Your task to perform on an android device: Open calendar and show me the fourth week of next month Image 0: 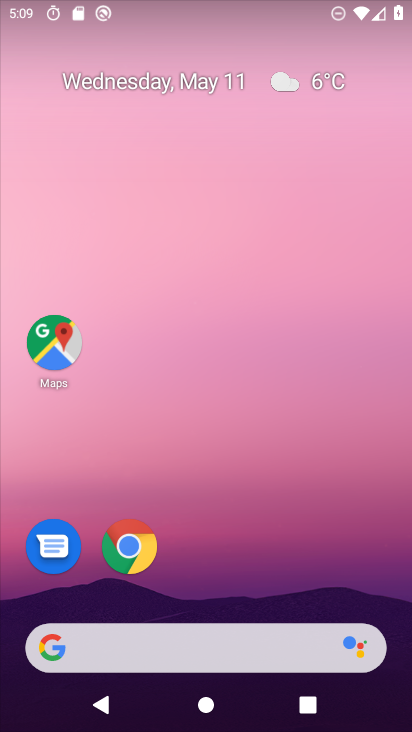
Step 0: drag from (234, 606) to (205, 196)
Your task to perform on an android device: Open calendar and show me the fourth week of next month Image 1: 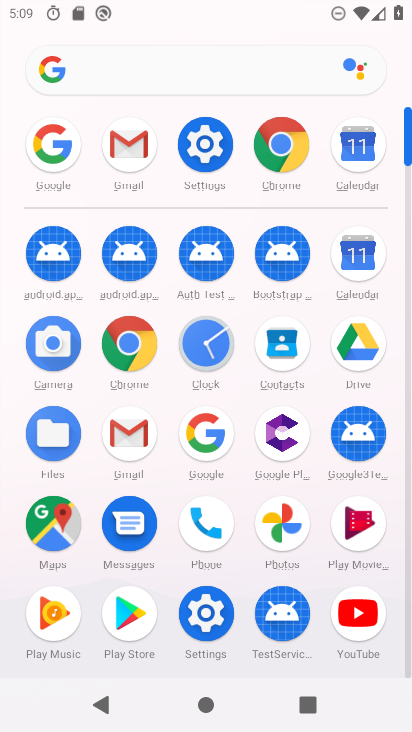
Step 1: click (363, 148)
Your task to perform on an android device: Open calendar and show me the fourth week of next month Image 2: 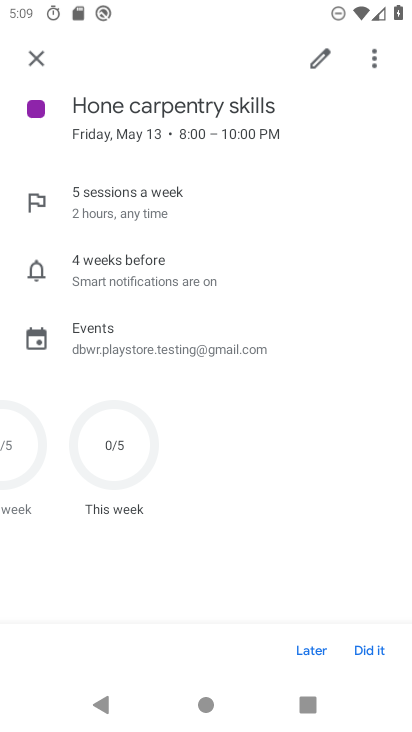
Step 2: click (42, 50)
Your task to perform on an android device: Open calendar and show me the fourth week of next month Image 3: 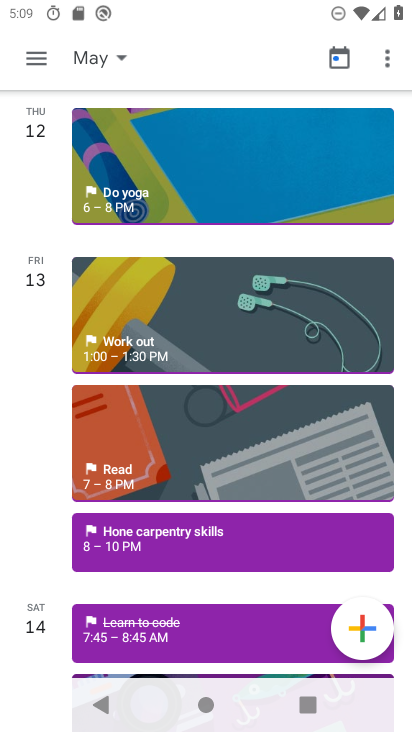
Step 3: click (78, 60)
Your task to perform on an android device: Open calendar and show me the fourth week of next month Image 4: 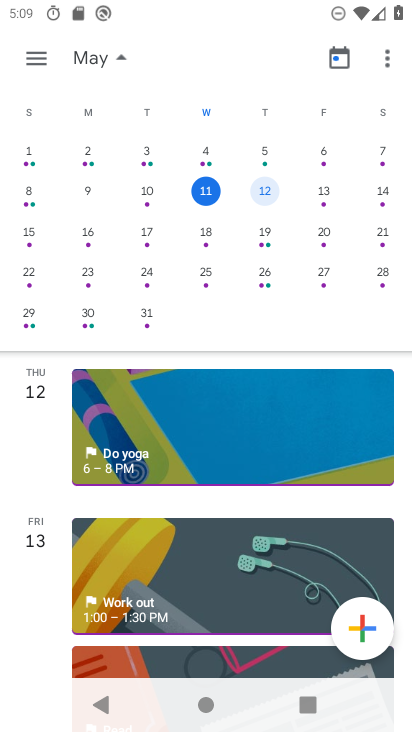
Step 4: drag from (367, 295) to (9, 303)
Your task to perform on an android device: Open calendar and show me the fourth week of next month Image 5: 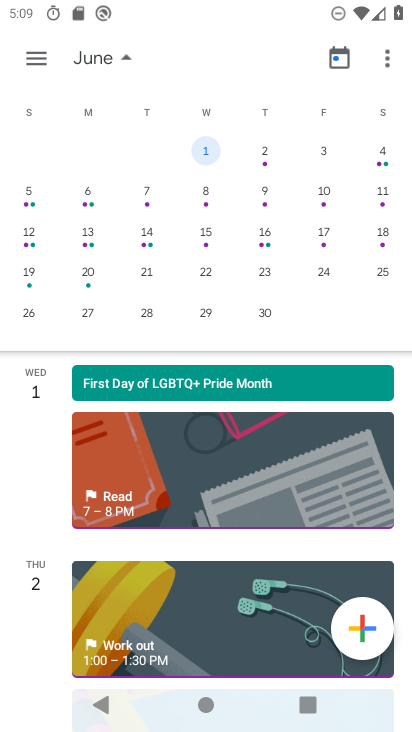
Step 5: click (89, 281)
Your task to perform on an android device: Open calendar and show me the fourth week of next month Image 6: 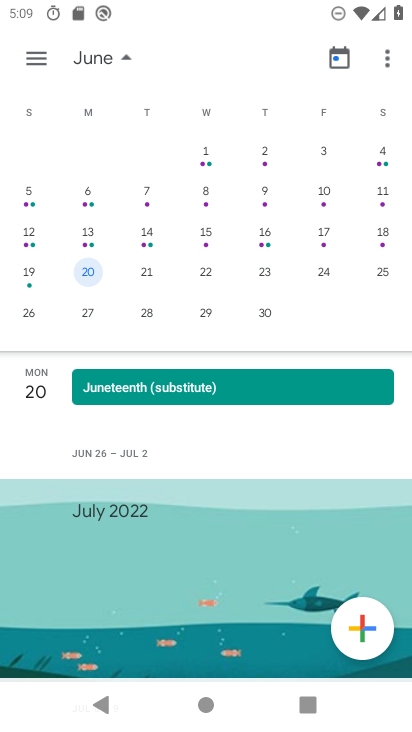
Step 6: click (165, 474)
Your task to perform on an android device: Open calendar and show me the fourth week of next month Image 7: 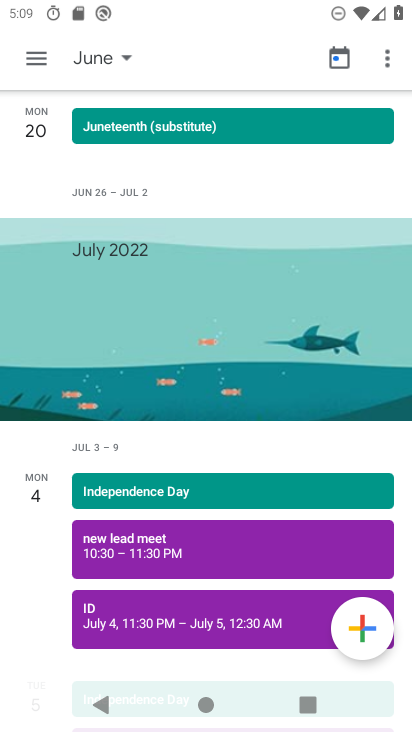
Step 7: click (133, 508)
Your task to perform on an android device: Open calendar and show me the fourth week of next month Image 8: 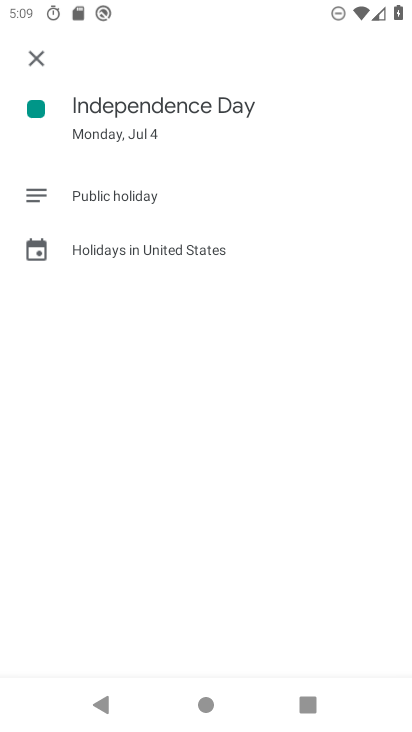
Step 8: click (133, 508)
Your task to perform on an android device: Open calendar and show me the fourth week of next month Image 9: 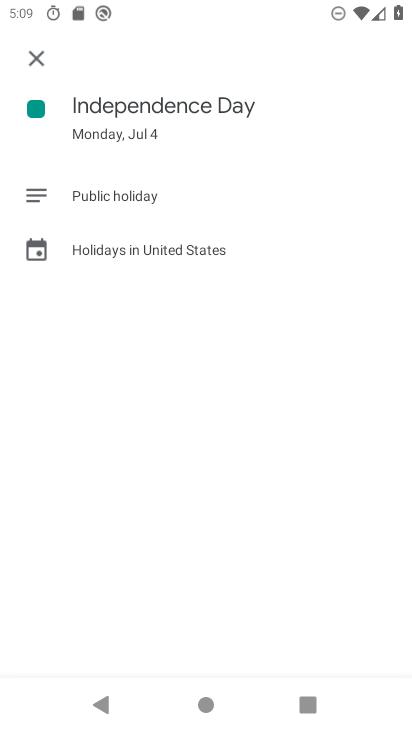
Step 9: click (135, 508)
Your task to perform on an android device: Open calendar and show me the fourth week of next month Image 10: 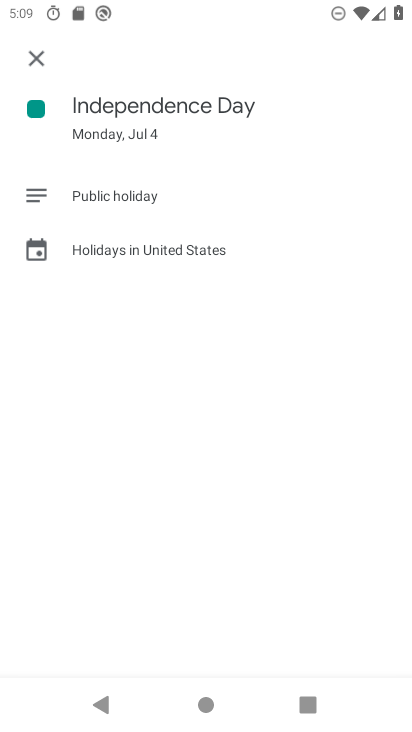
Step 10: click (135, 508)
Your task to perform on an android device: Open calendar and show me the fourth week of next month Image 11: 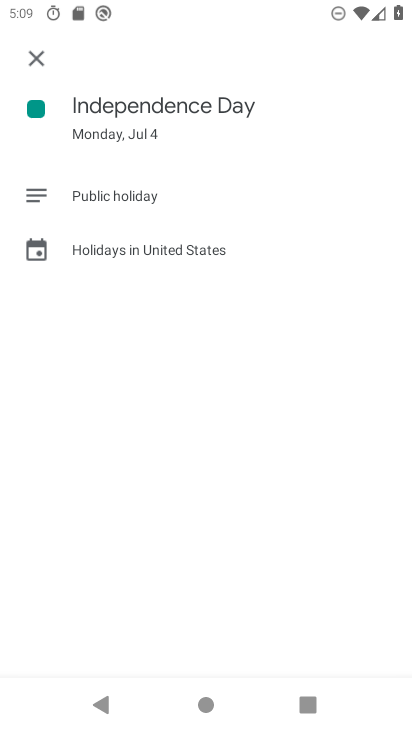
Step 11: click (135, 508)
Your task to perform on an android device: Open calendar and show me the fourth week of next month Image 12: 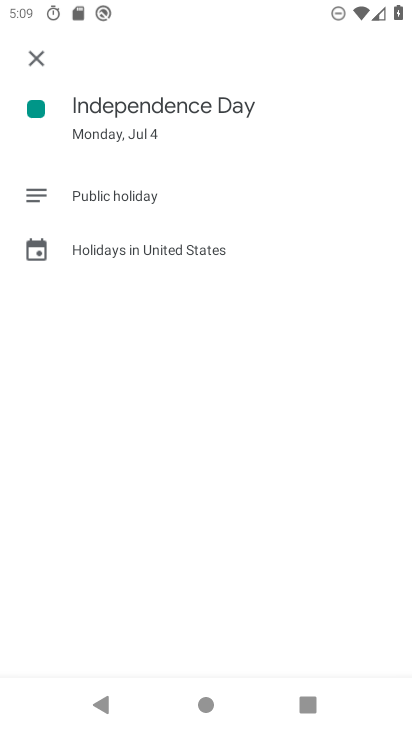
Step 12: click (135, 508)
Your task to perform on an android device: Open calendar and show me the fourth week of next month Image 13: 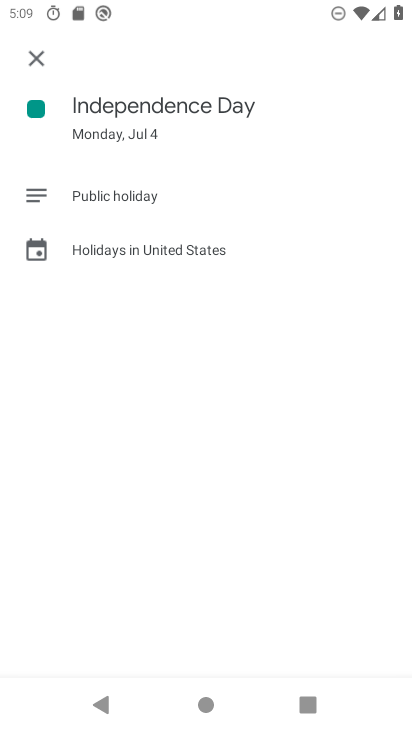
Step 13: click (135, 508)
Your task to perform on an android device: Open calendar and show me the fourth week of next month Image 14: 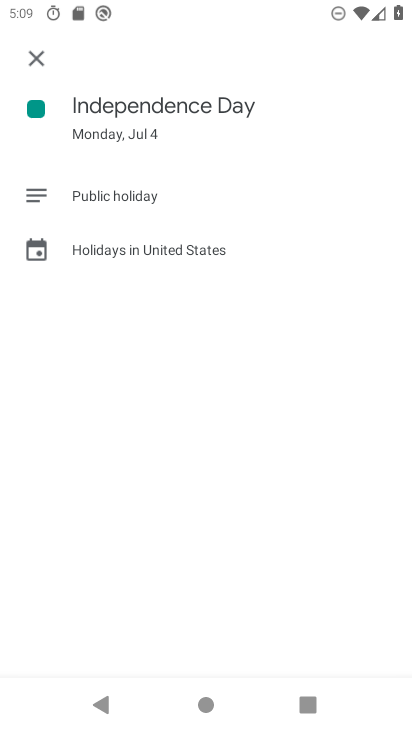
Step 14: click (135, 508)
Your task to perform on an android device: Open calendar and show me the fourth week of next month Image 15: 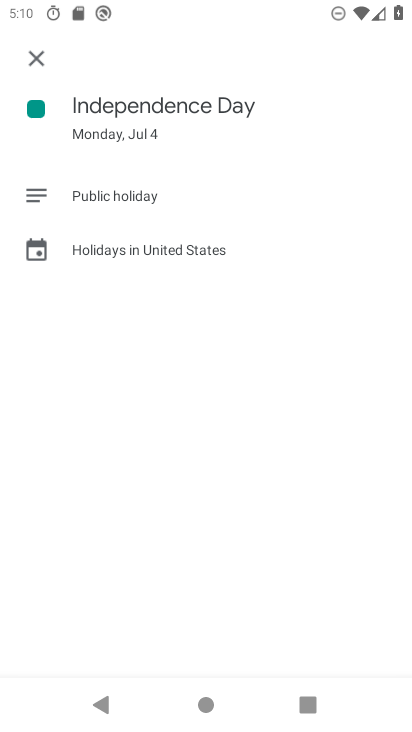
Step 15: click (135, 508)
Your task to perform on an android device: Open calendar and show me the fourth week of next month Image 16: 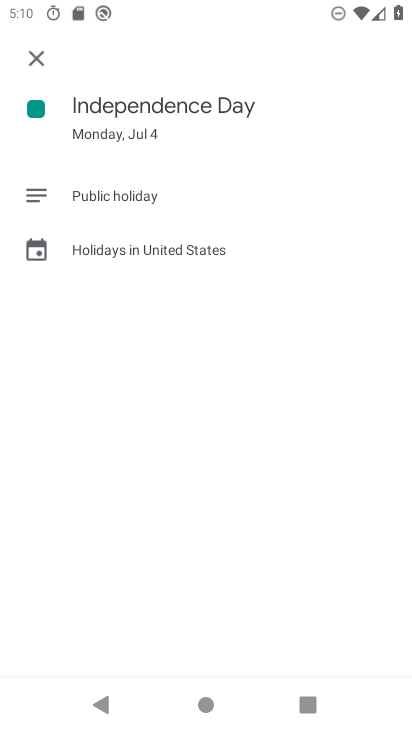
Step 16: click (135, 508)
Your task to perform on an android device: Open calendar and show me the fourth week of next month Image 17: 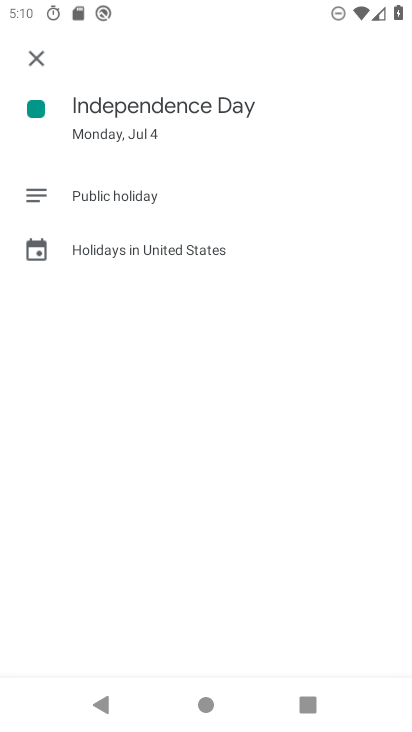
Step 17: click (135, 508)
Your task to perform on an android device: Open calendar and show me the fourth week of next month Image 18: 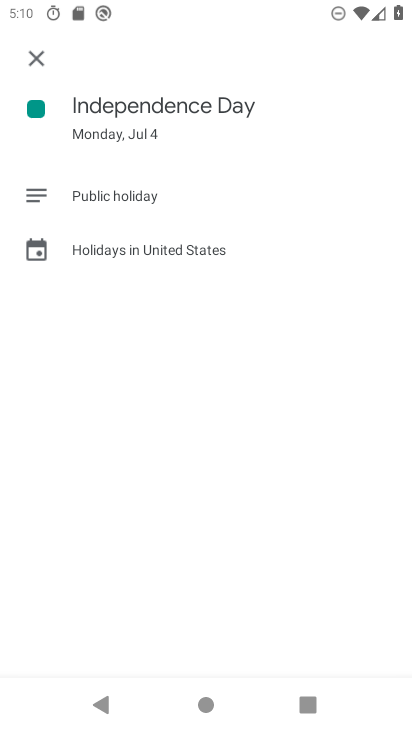
Step 18: click (135, 508)
Your task to perform on an android device: Open calendar and show me the fourth week of next month Image 19: 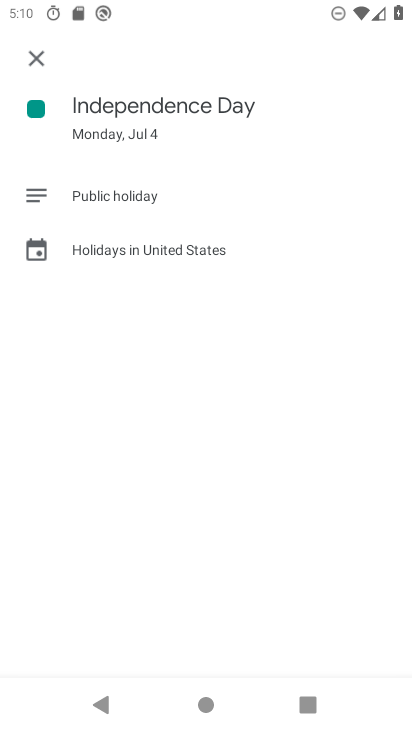
Step 19: task complete